Your task to perform on an android device: How much does a 2x4x8 board cost at Lowes? Image 0: 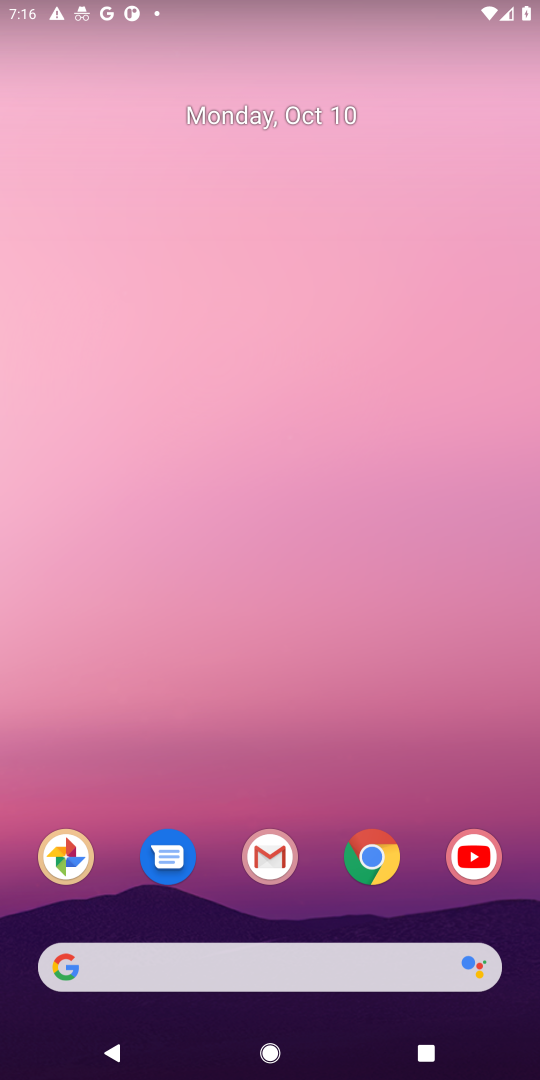
Step 0: click (372, 857)
Your task to perform on an android device: How much does a 2x4x8 board cost at Lowes? Image 1: 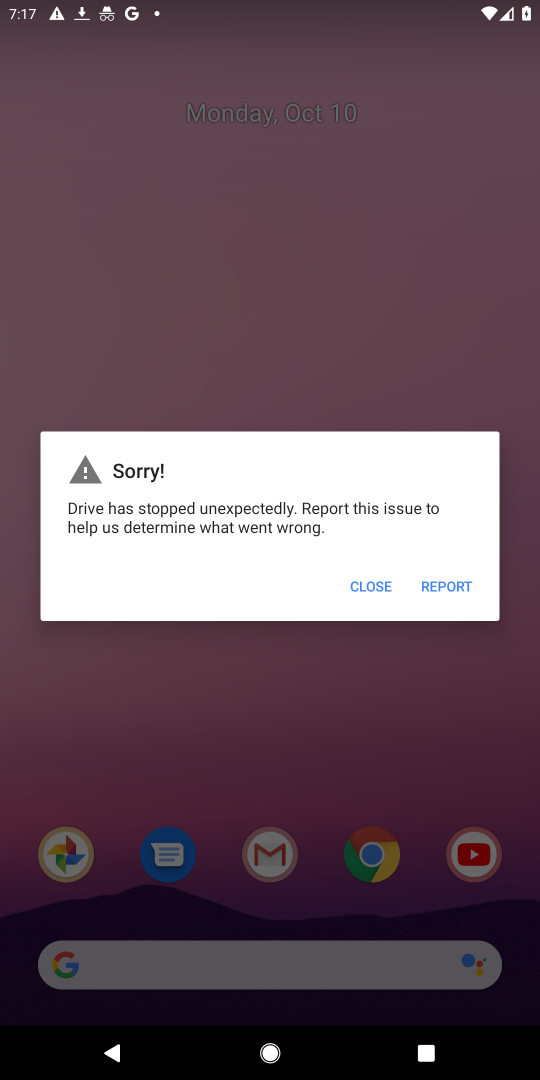
Step 1: click (388, 735)
Your task to perform on an android device: How much does a 2x4x8 board cost at Lowes? Image 2: 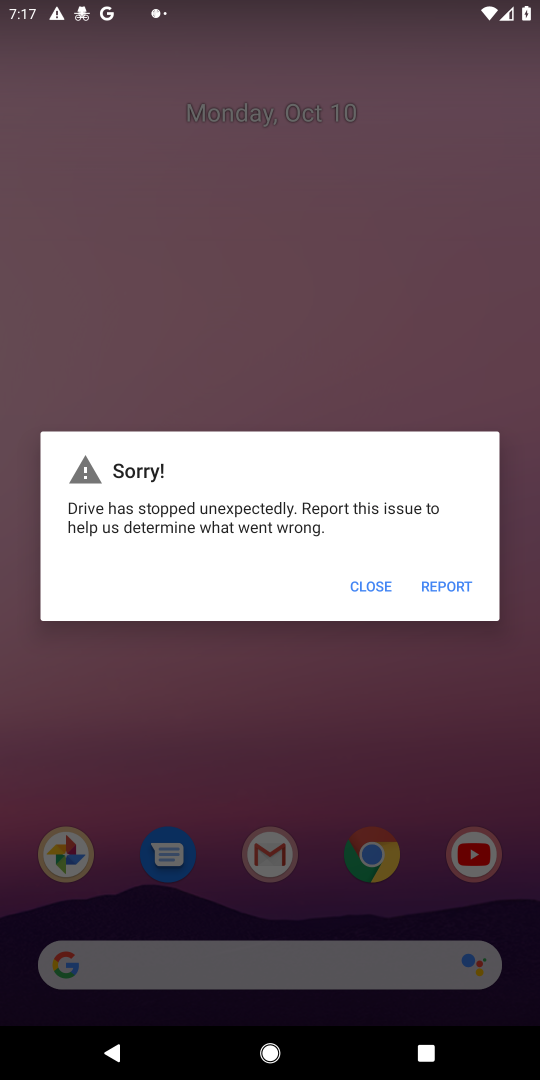
Step 2: click (372, 591)
Your task to perform on an android device: How much does a 2x4x8 board cost at Lowes? Image 3: 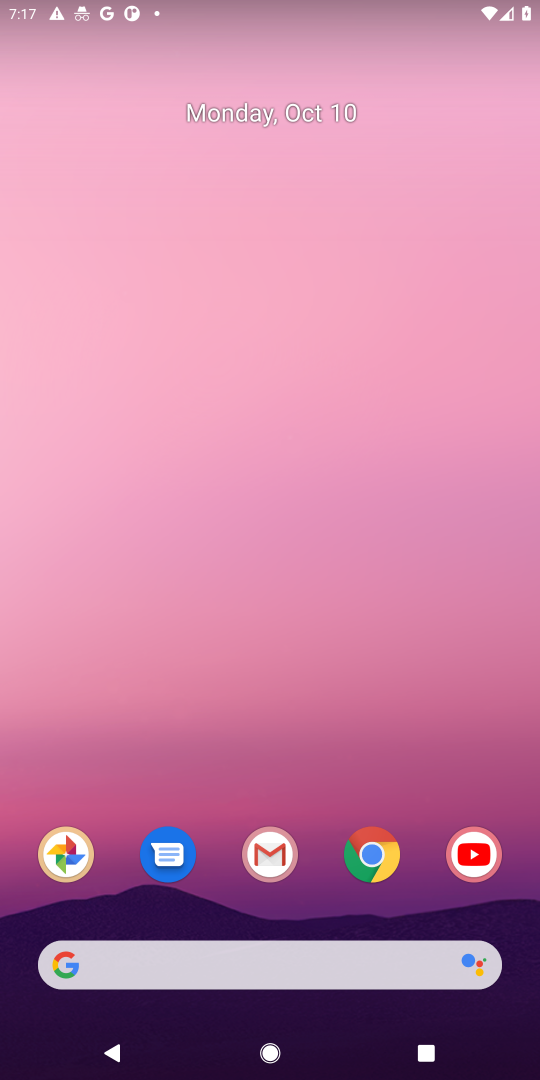
Step 3: click (378, 856)
Your task to perform on an android device: How much does a 2x4x8 board cost at Lowes? Image 4: 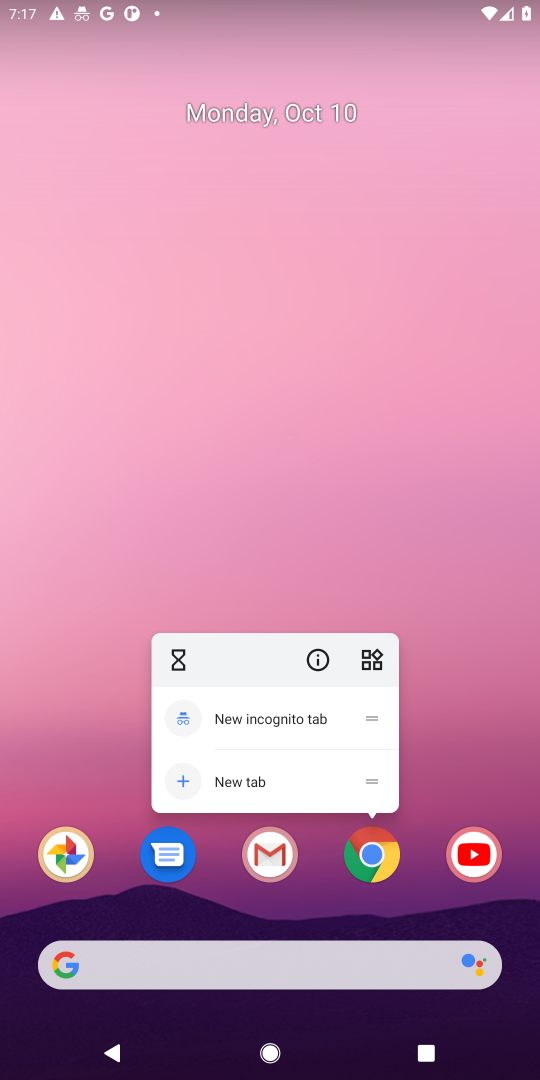
Step 4: click (371, 856)
Your task to perform on an android device: How much does a 2x4x8 board cost at Lowes? Image 5: 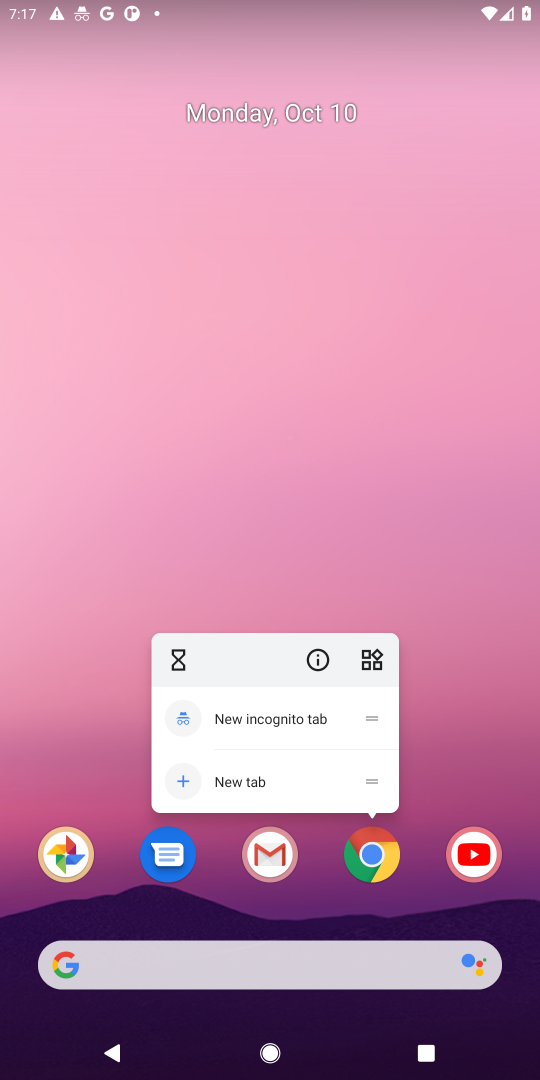
Step 5: click (371, 859)
Your task to perform on an android device: How much does a 2x4x8 board cost at Lowes? Image 6: 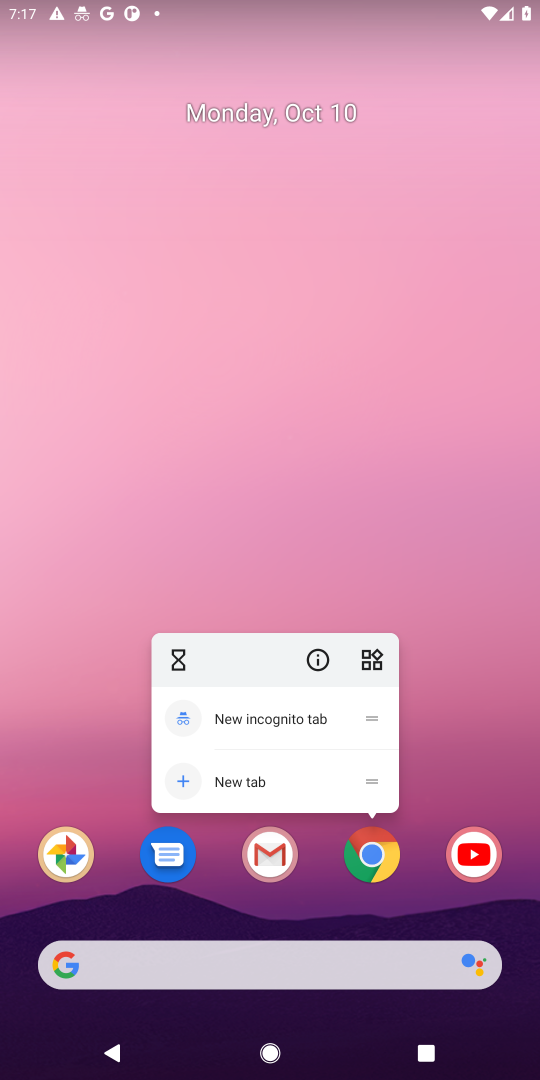
Step 6: click (371, 860)
Your task to perform on an android device: How much does a 2x4x8 board cost at Lowes? Image 7: 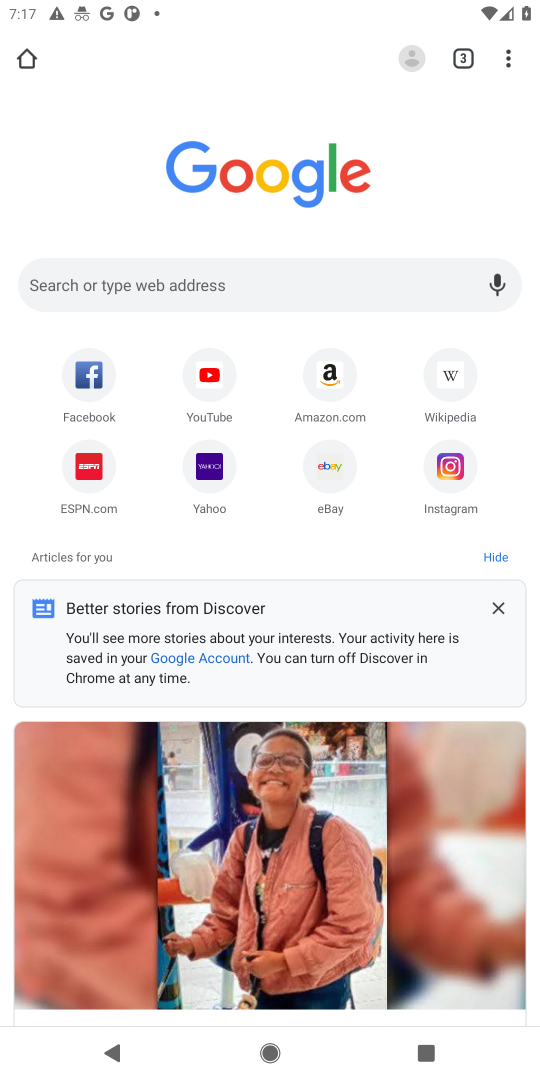
Step 7: click (184, 277)
Your task to perform on an android device: How much does a 2x4x8 board cost at Lowes? Image 8: 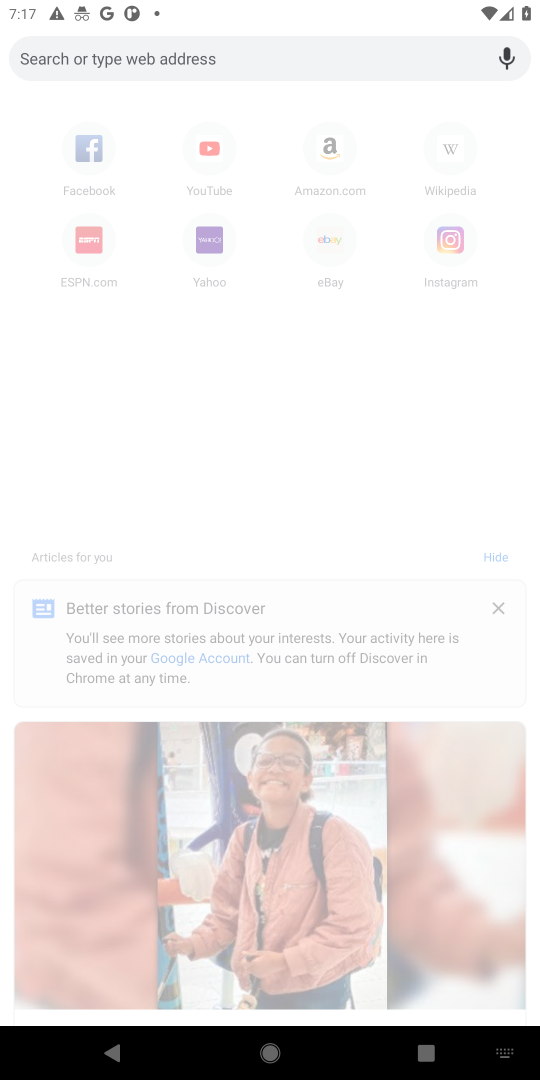
Step 8: type "How much does a 2x4x8 board cost at Lowes"
Your task to perform on an android device: How much does a 2x4x8 board cost at Lowes? Image 9: 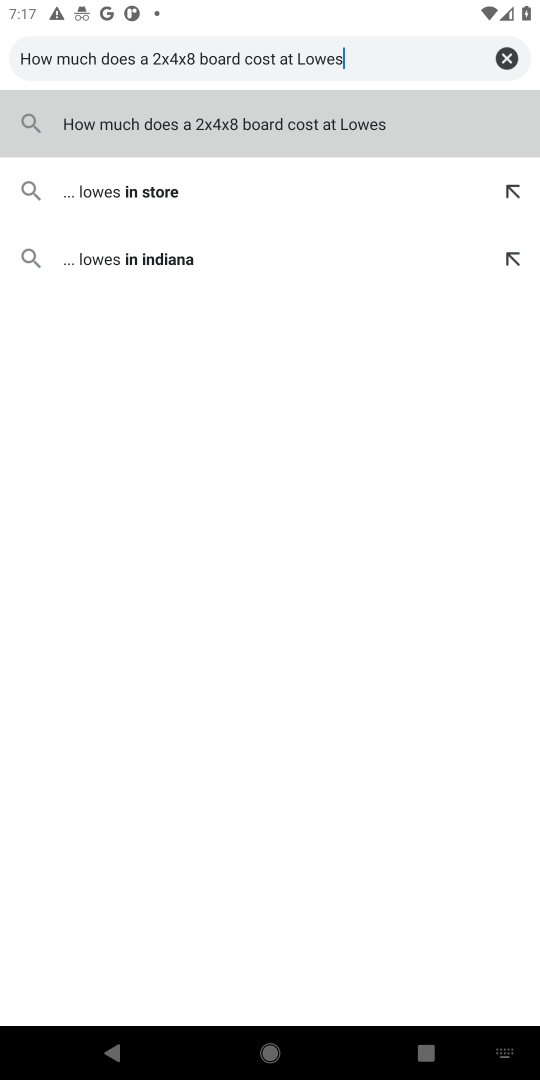
Step 9: click (216, 124)
Your task to perform on an android device: How much does a 2x4x8 board cost at Lowes? Image 10: 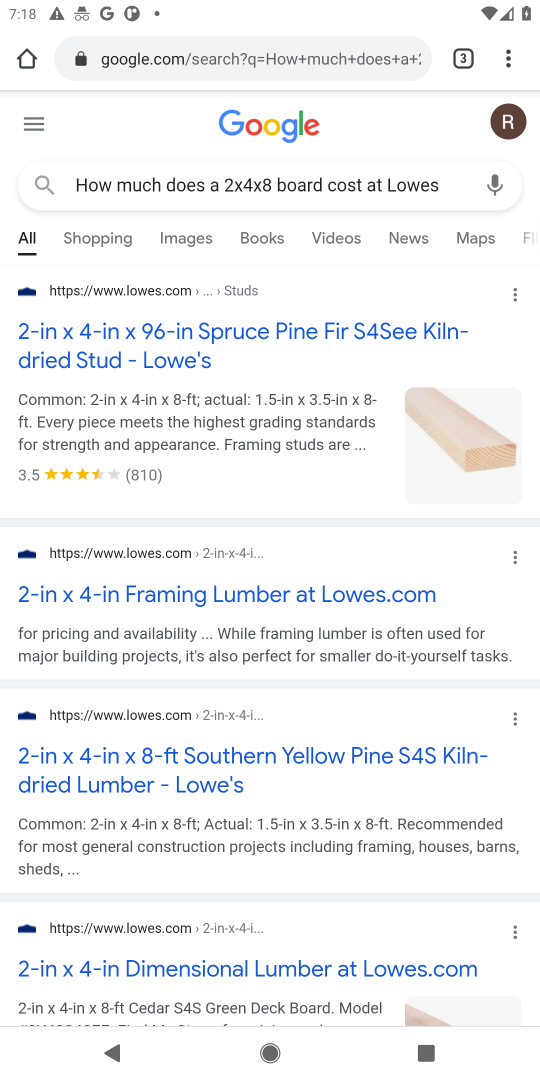
Step 10: click (240, 333)
Your task to perform on an android device: How much does a 2x4x8 board cost at Lowes? Image 11: 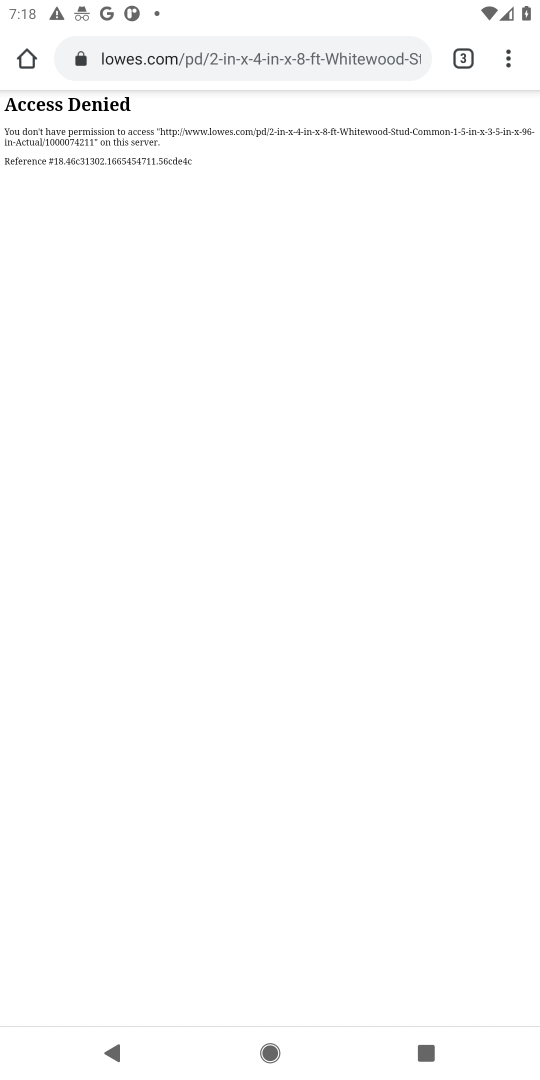
Step 11: task complete